Your task to perform on an android device: uninstall "Yahoo Mail" Image 0: 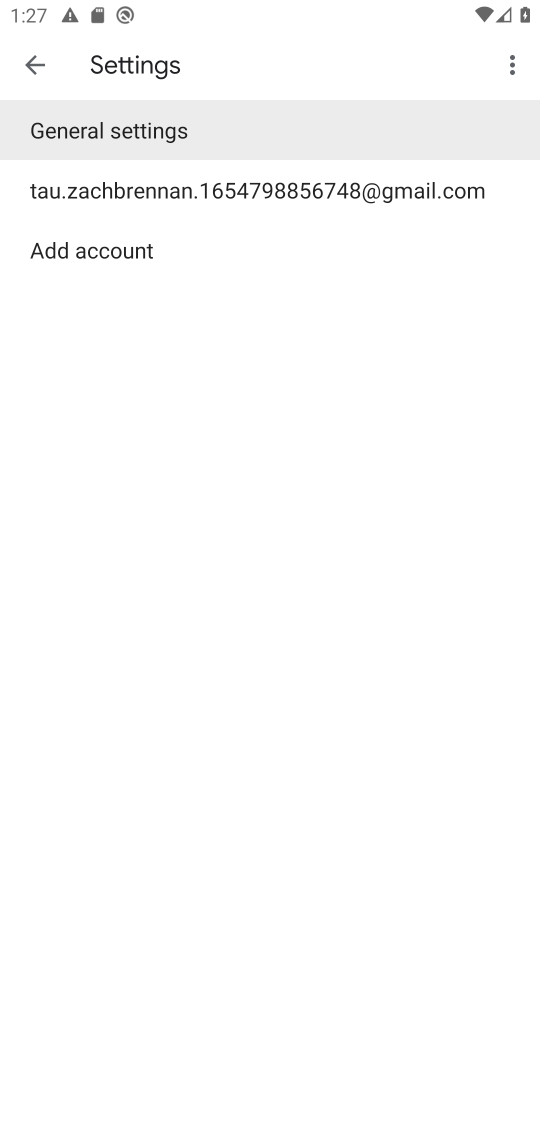
Step 0: press home button
Your task to perform on an android device: uninstall "Yahoo Mail" Image 1: 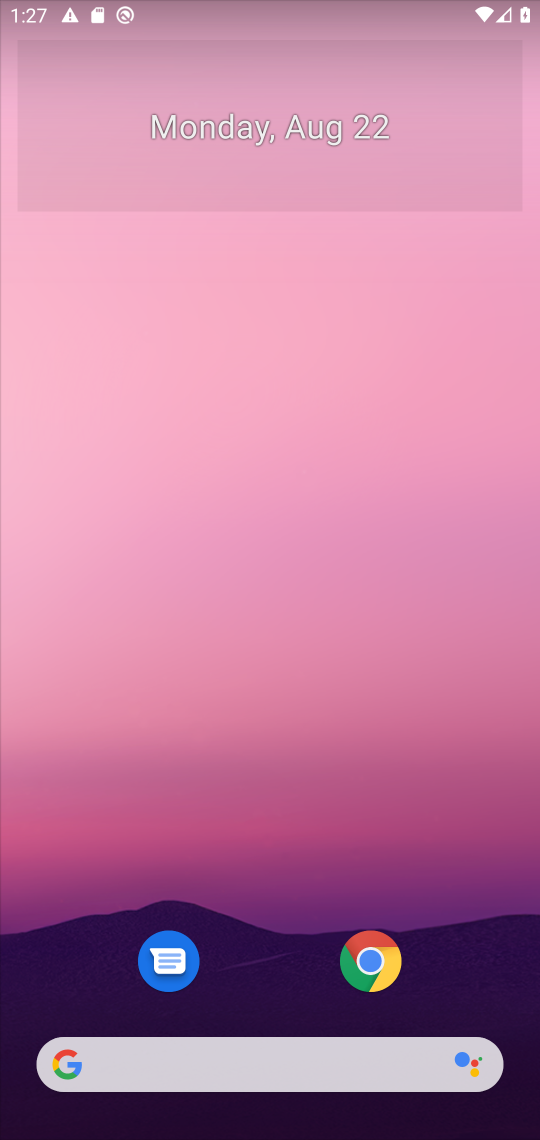
Step 1: drag from (452, 977) to (477, 125)
Your task to perform on an android device: uninstall "Yahoo Mail" Image 2: 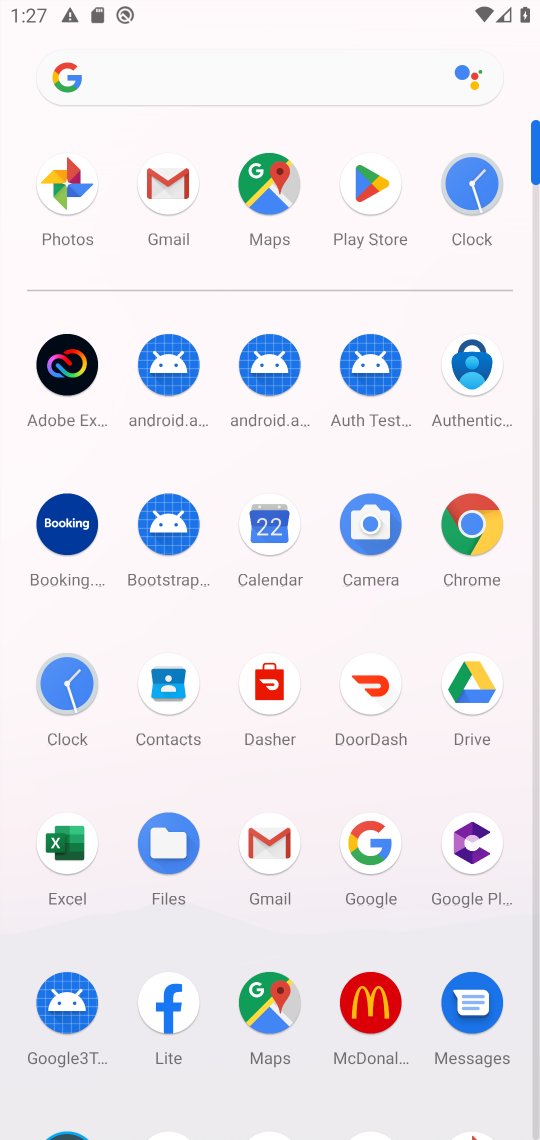
Step 2: click (370, 187)
Your task to perform on an android device: uninstall "Yahoo Mail" Image 3: 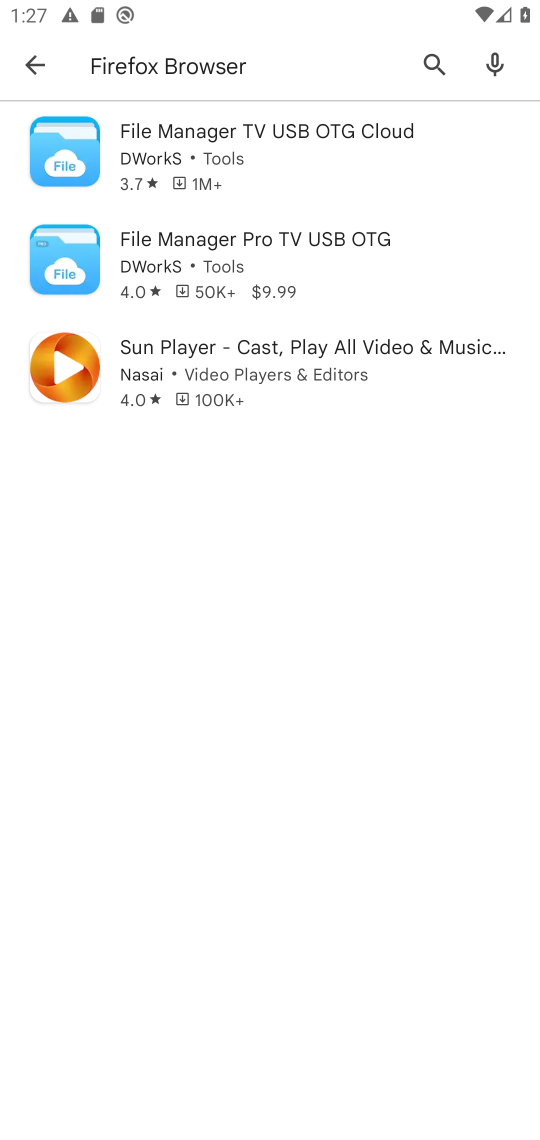
Step 3: press back button
Your task to perform on an android device: uninstall "Yahoo Mail" Image 4: 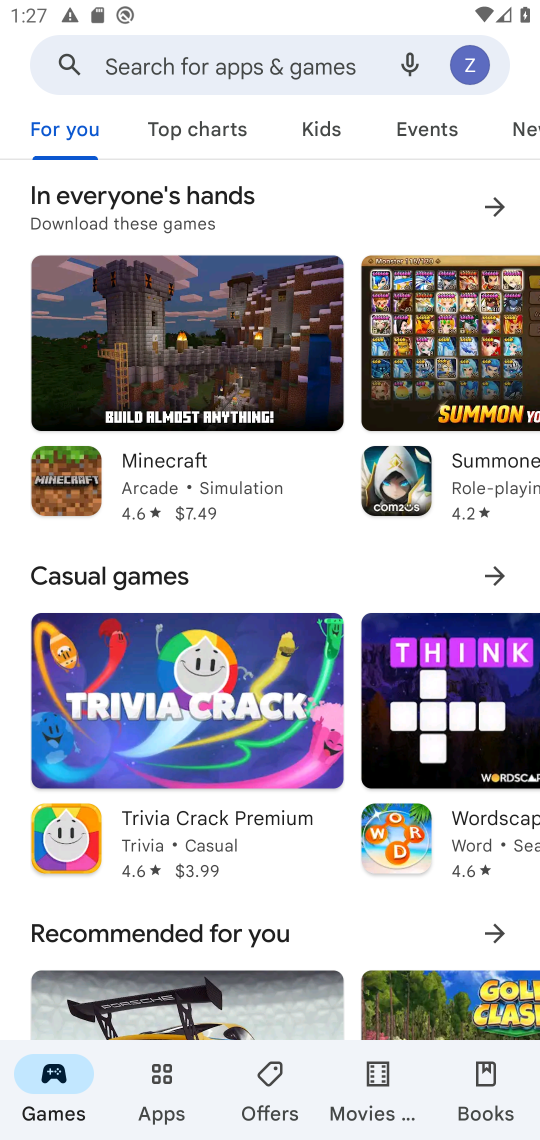
Step 4: click (277, 59)
Your task to perform on an android device: uninstall "Yahoo Mail" Image 5: 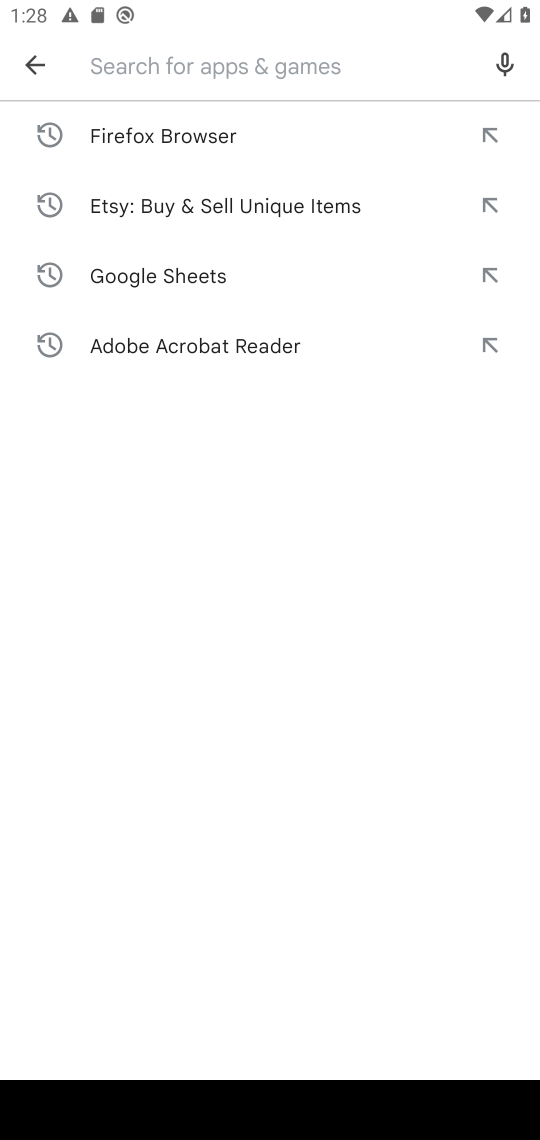
Step 5: type "yahoo mail"
Your task to perform on an android device: uninstall "Yahoo Mail" Image 6: 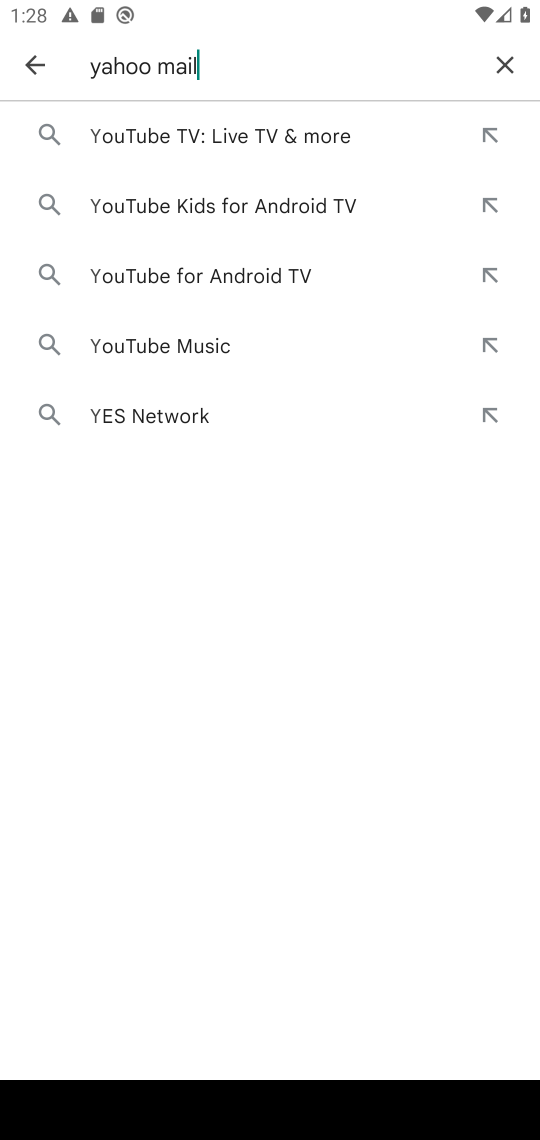
Step 6: press enter
Your task to perform on an android device: uninstall "Yahoo Mail" Image 7: 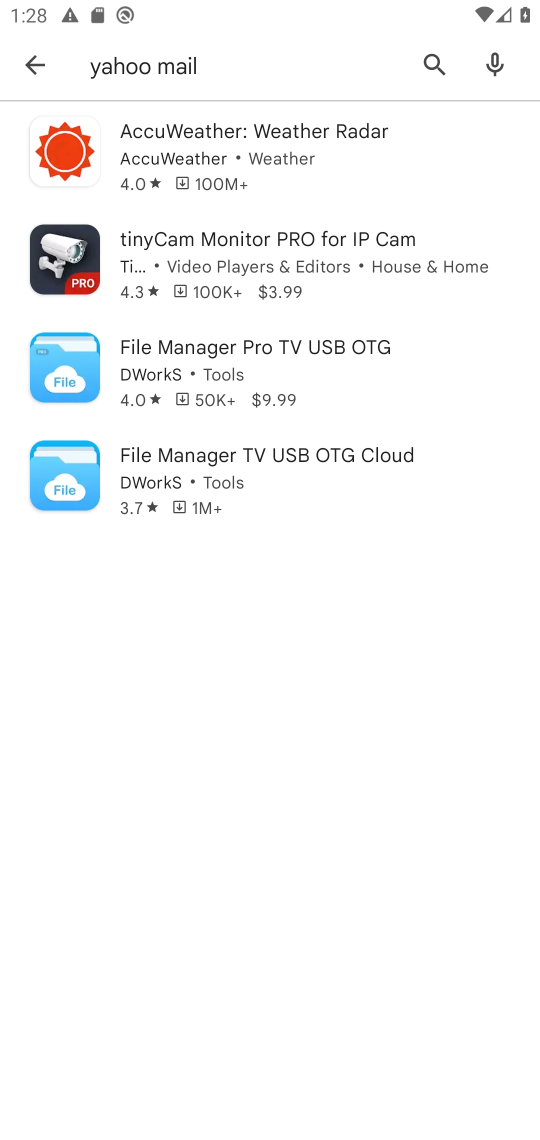
Step 7: task complete